Your task to perform on an android device: Search for Mexican restaurants on Maps Image 0: 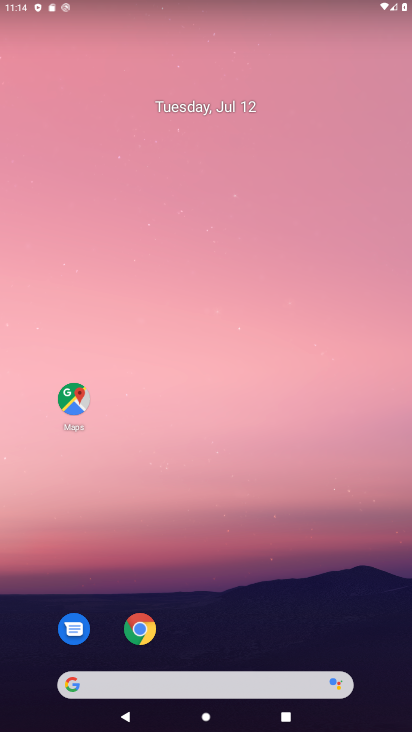
Step 0: click (73, 398)
Your task to perform on an android device: Search for Mexican restaurants on Maps Image 1: 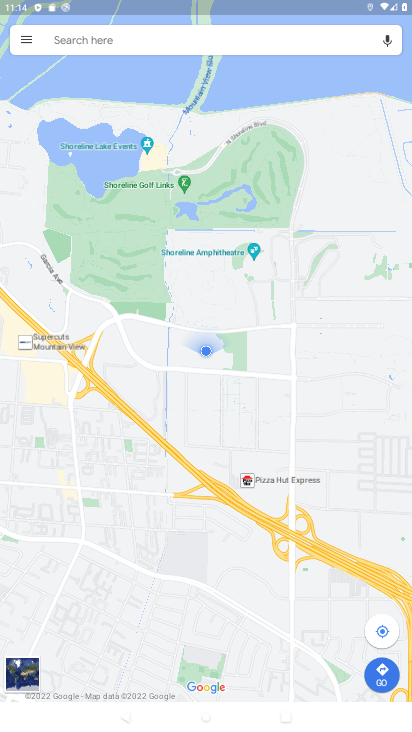
Step 1: click (89, 31)
Your task to perform on an android device: Search for Mexican restaurants on Maps Image 2: 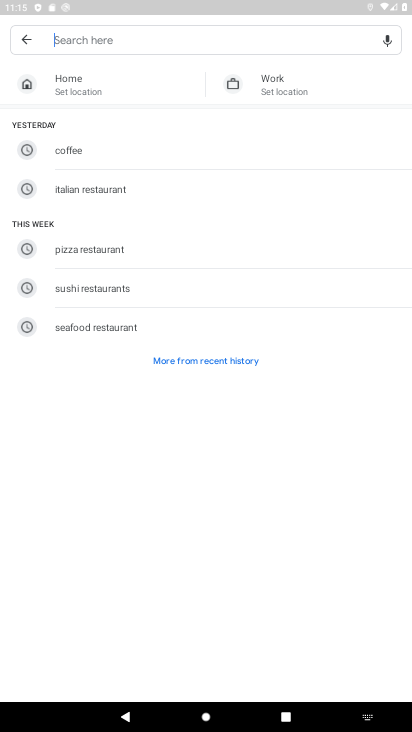
Step 2: type "mexican"
Your task to perform on an android device: Search for Mexican restaurants on Maps Image 3: 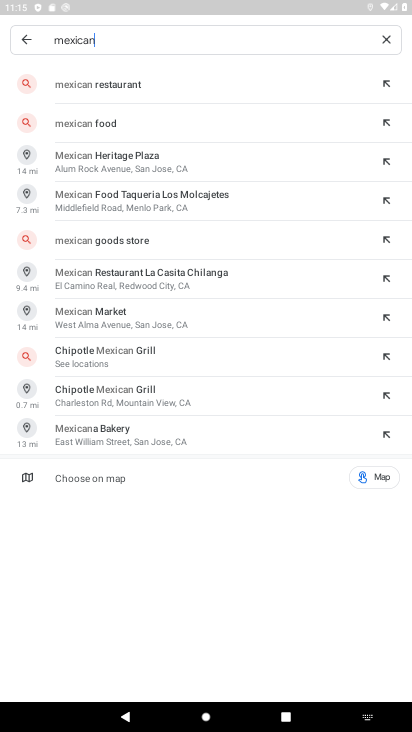
Step 3: click (111, 86)
Your task to perform on an android device: Search for Mexican restaurants on Maps Image 4: 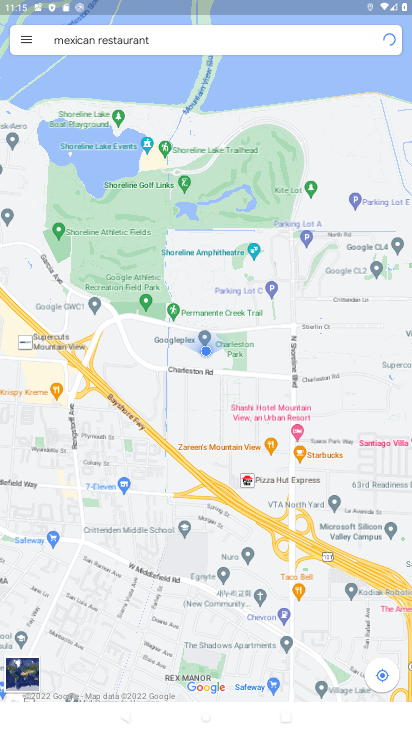
Step 4: task complete